Your task to perform on an android device: change your default location settings in chrome Image 0: 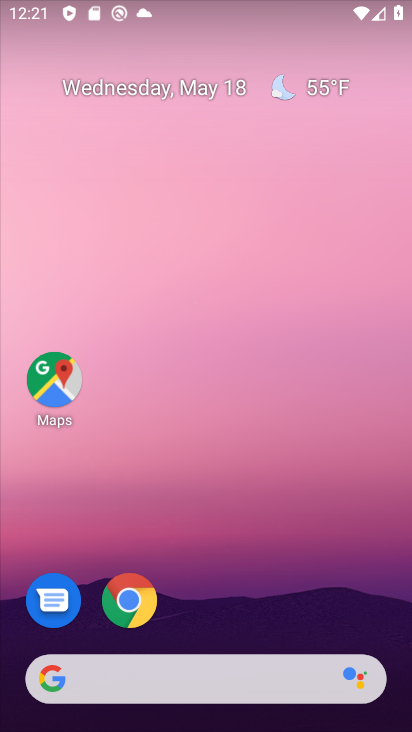
Step 0: drag from (224, 672) to (220, 236)
Your task to perform on an android device: change your default location settings in chrome Image 1: 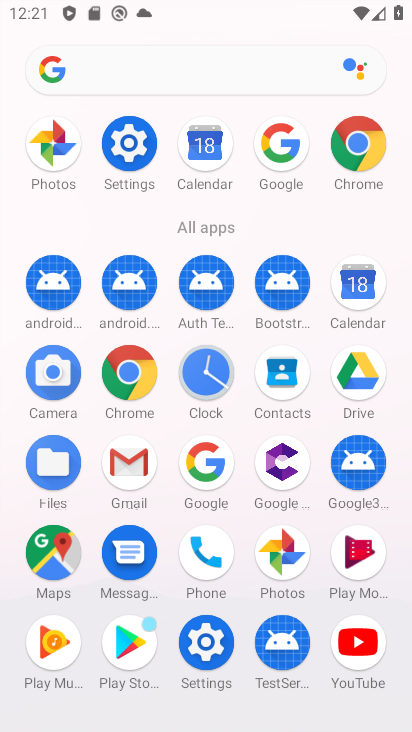
Step 1: click (347, 149)
Your task to perform on an android device: change your default location settings in chrome Image 2: 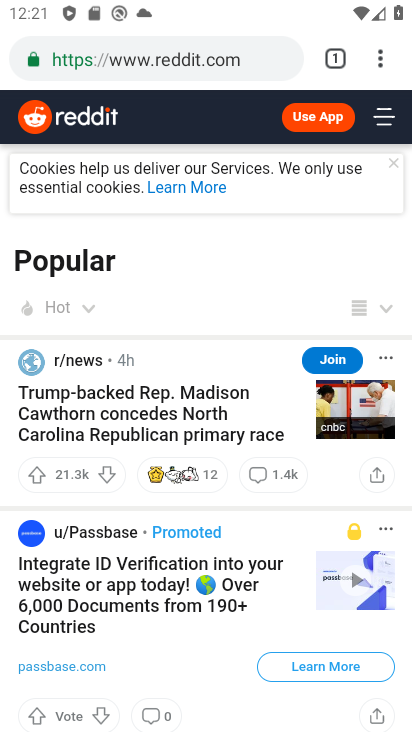
Step 2: drag from (370, 62) to (185, 622)
Your task to perform on an android device: change your default location settings in chrome Image 3: 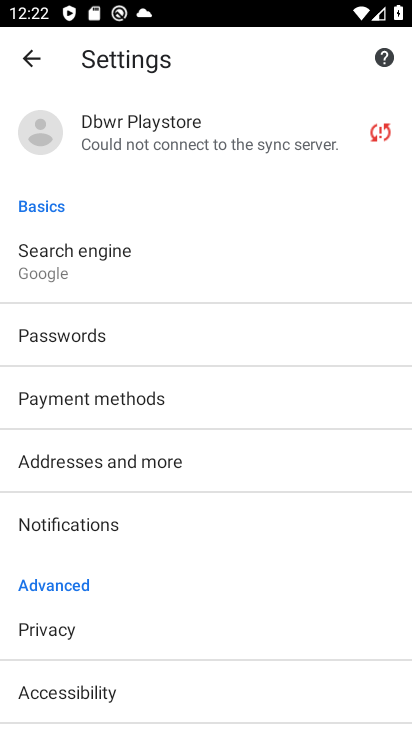
Step 3: drag from (130, 638) to (103, 118)
Your task to perform on an android device: change your default location settings in chrome Image 4: 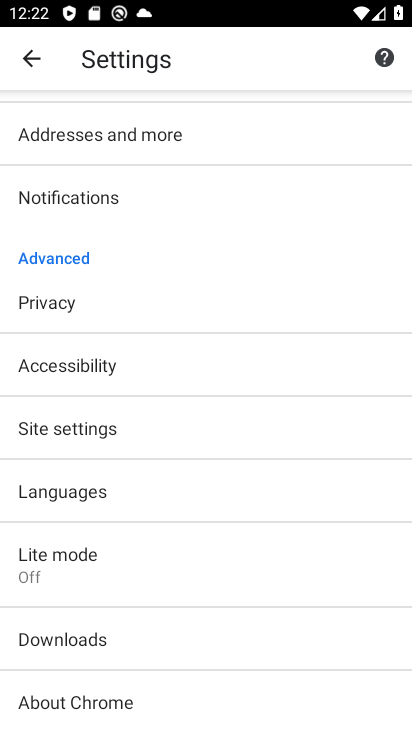
Step 4: click (165, 424)
Your task to perform on an android device: change your default location settings in chrome Image 5: 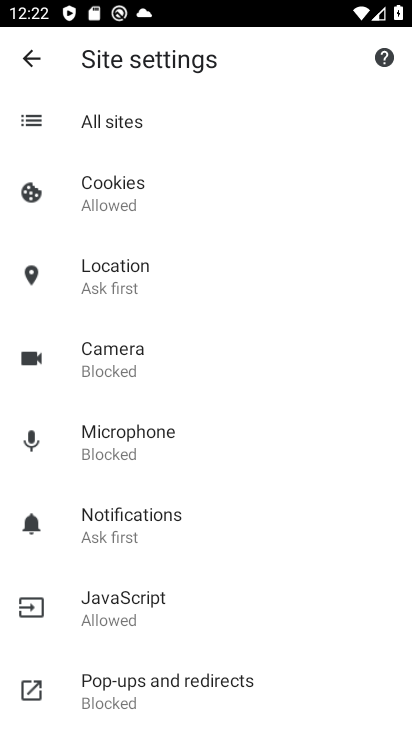
Step 5: click (173, 254)
Your task to perform on an android device: change your default location settings in chrome Image 6: 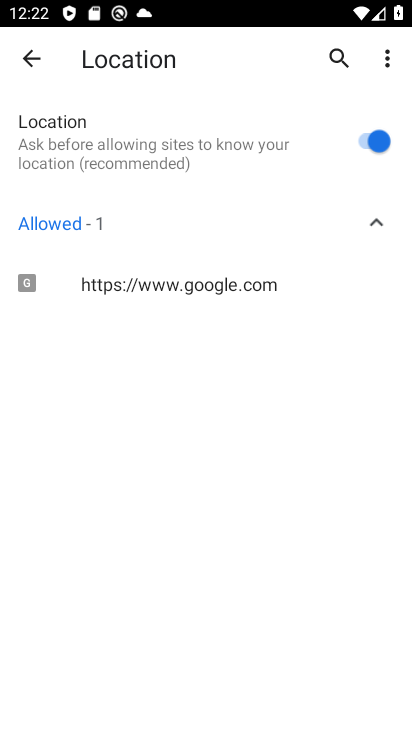
Step 6: click (378, 142)
Your task to perform on an android device: change your default location settings in chrome Image 7: 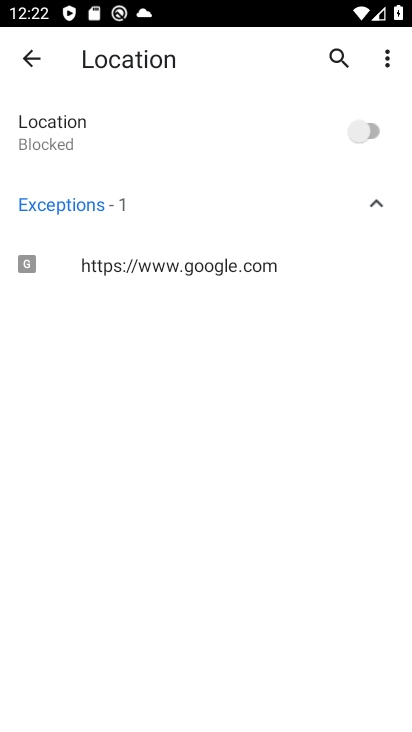
Step 7: task complete